Your task to perform on an android device: Open Google Chrome and open the bookmarks view Image 0: 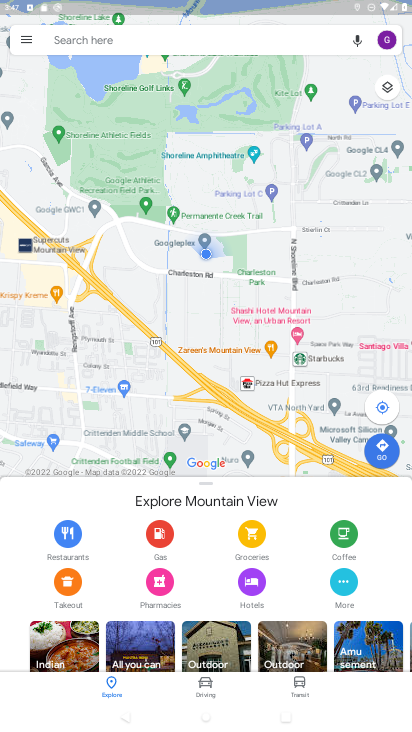
Step 0: press home button
Your task to perform on an android device: Open Google Chrome and open the bookmarks view Image 1: 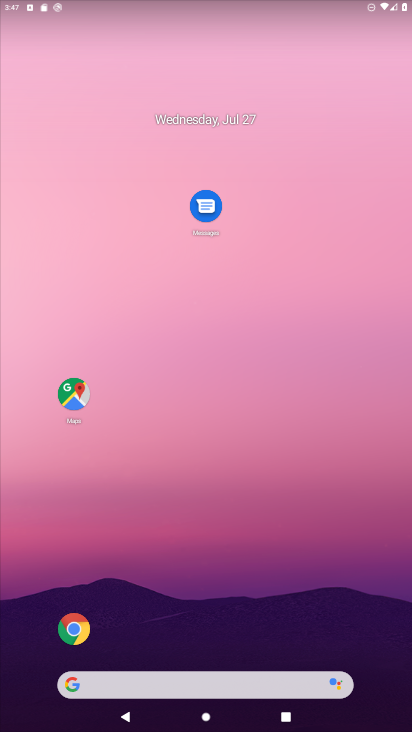
Step 1: click (71, 632)
Your task to perform on an android device: Open Google Chrome and open the bookmarks view Image 2: 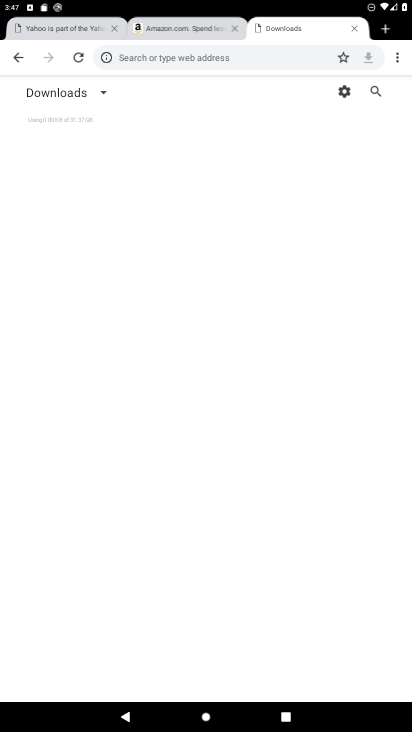
Step 2: click (407, 55)
Your task to perform on an android device: Open Google Chrome and open the bookmarks view Image 3: 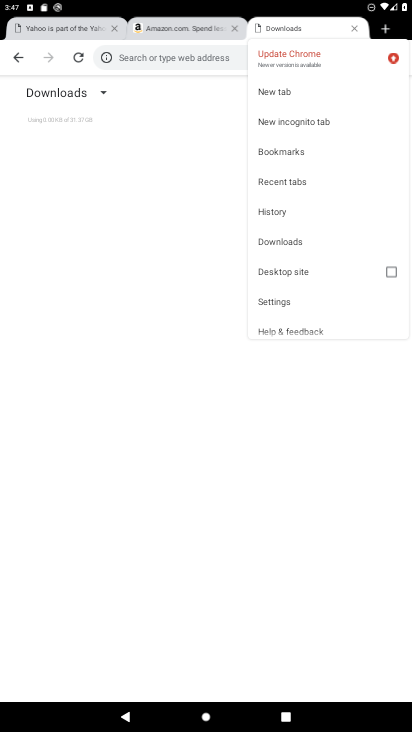
Step 3: click (315, 159)
Your task to perform on an android device: Open Google Chrome and open the bookmarks view Image 4: 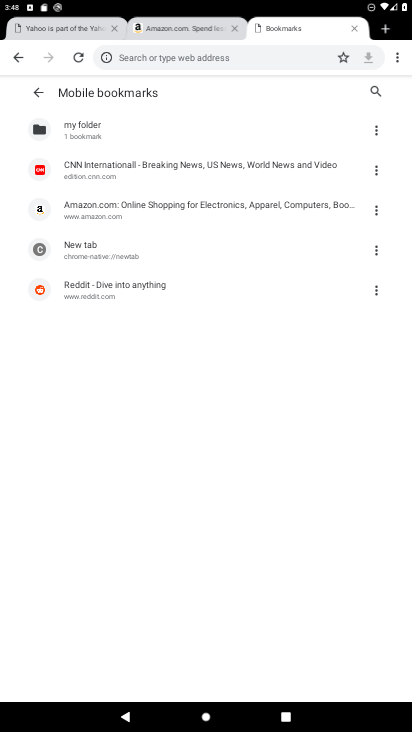
Step 4: task complete